Your task to perform on an android device: change notifications settings Image 0: 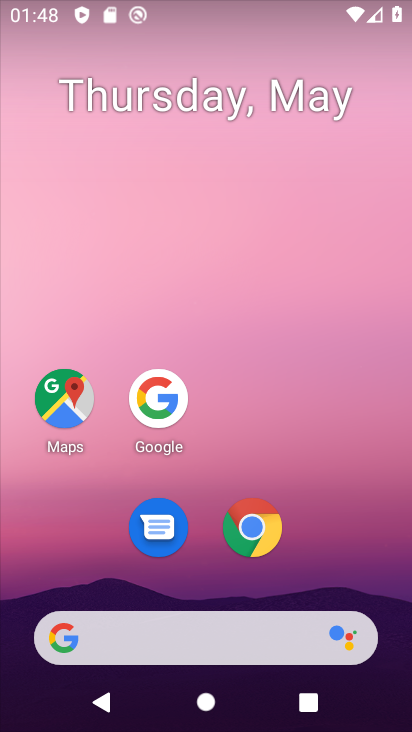
Step 0: drag from (195, 567) to (235, 59)
Your task to perform on an android device: change notifications settings Image 1: 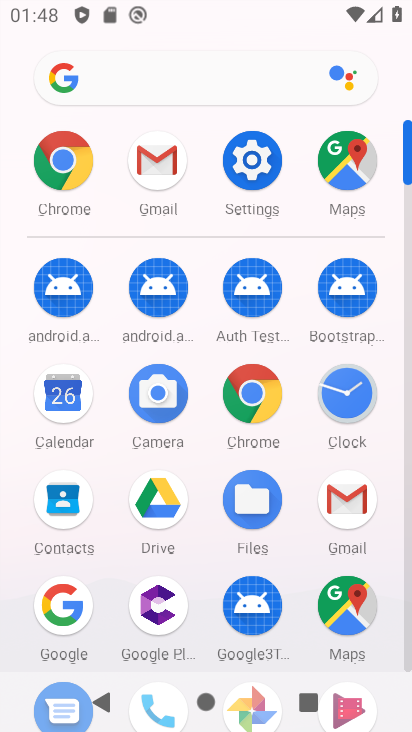
Step 1: click (245, 161)
Your task to perform on an android device: change notifications settings Image 2: 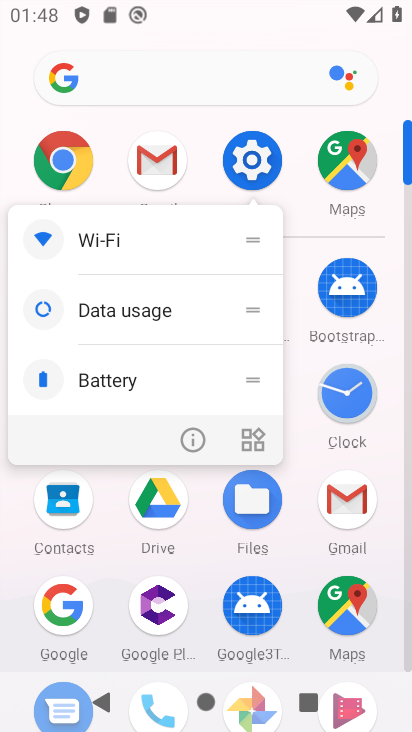
Step 2: click (192, 426)
Your task to perform on an android device: change notifications settings Image 3: 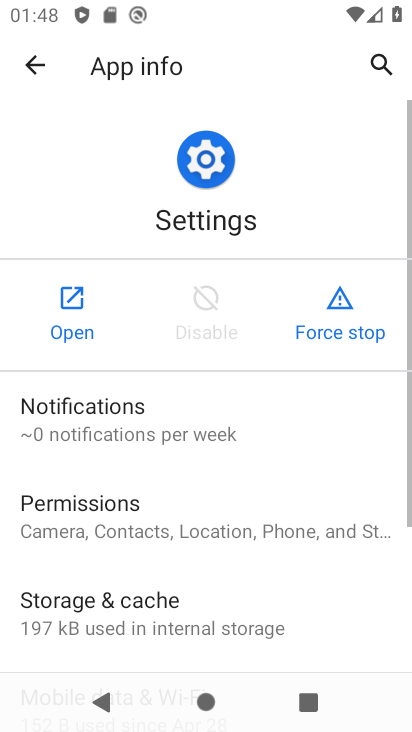
Step 3: click (60, 330)
Your task to perform on an android device: change notifications settings Image 4: 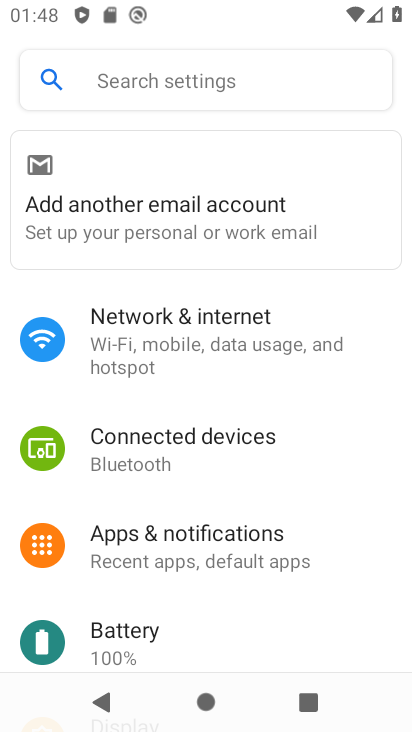
Step 4: click (182, 515)
Your task to perform on an android device: change notifications settings Image 5: 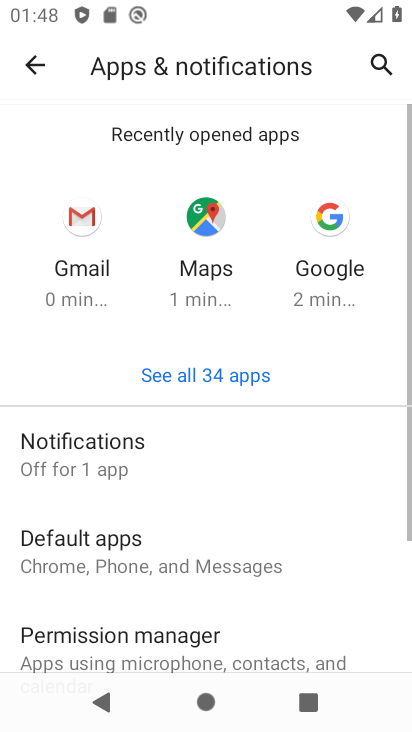
Step 5: click (158, 450)
Your task to perform on an android device: change notifications settings Image 6: 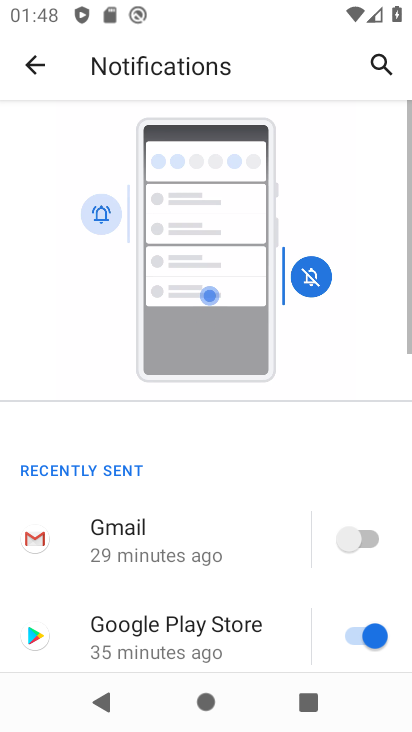
Step 6: drag from (261, 525) to (341, 142)
Your task to perform on an android device: change notifications settings Image 7: 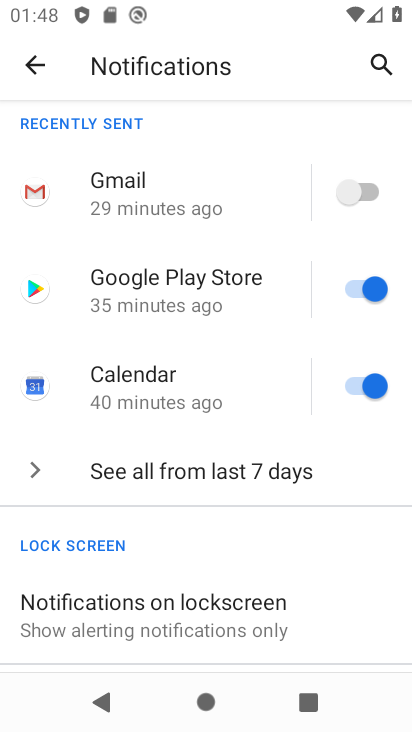
Step 7: drag from (244, 518) to (289, 12)
Your task to perform on an android device: change notifications settings Image 8: 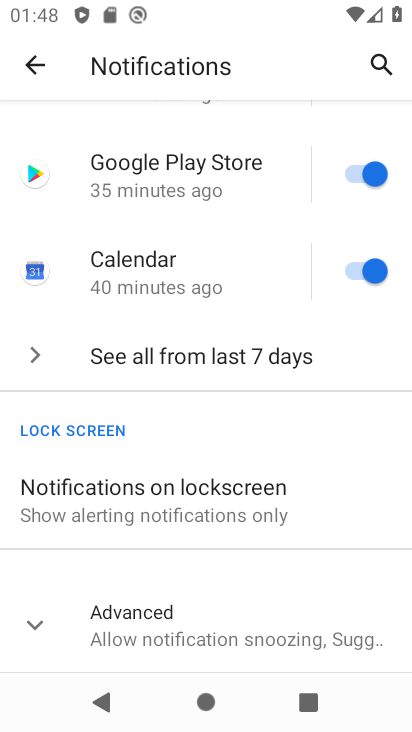
Step 8: click (179, 614)
Your task to perform on an android device: change notifications settings Image 9: 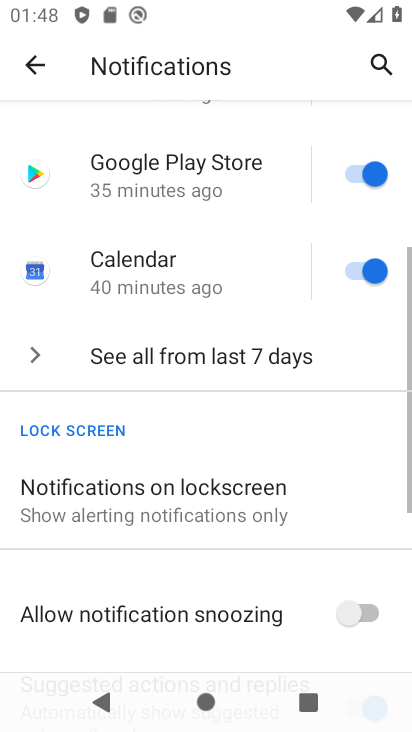
Step 9: drag from (192, 604) to (294, 176)
Your task to perform on an android device: change notifications settings Image 10: 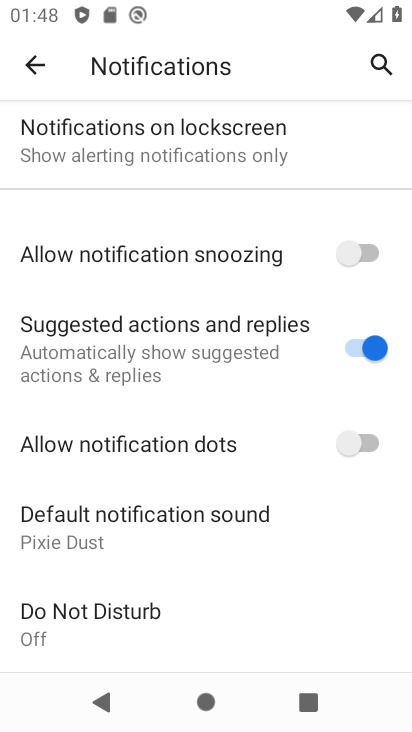
Step 10: click (358, 247)
Your task to perform on an android device: change notifications settings Image 11: 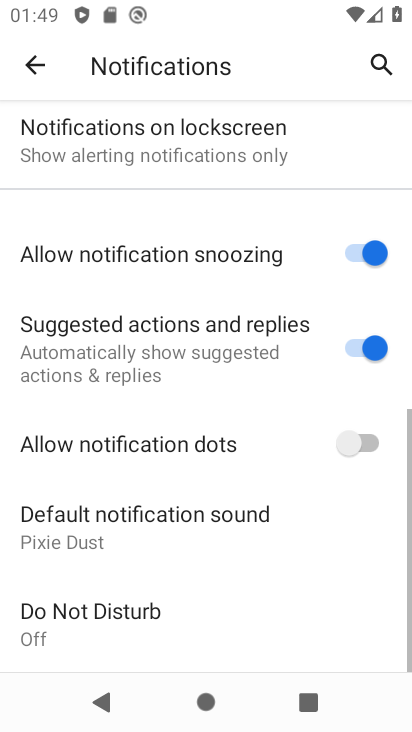
Step 11: task complete